Your task to perform on an android device: turn smart compose on in the gmail app Image 0: 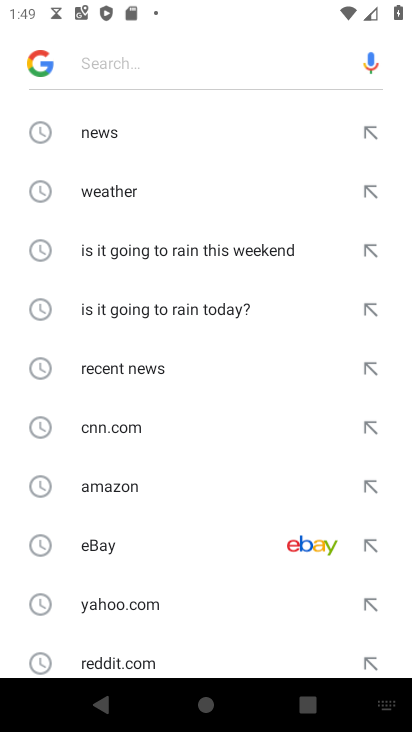
Step 0: press back button
Your task to perform on an android device: turn smart compose on in the gmail app Image 1: 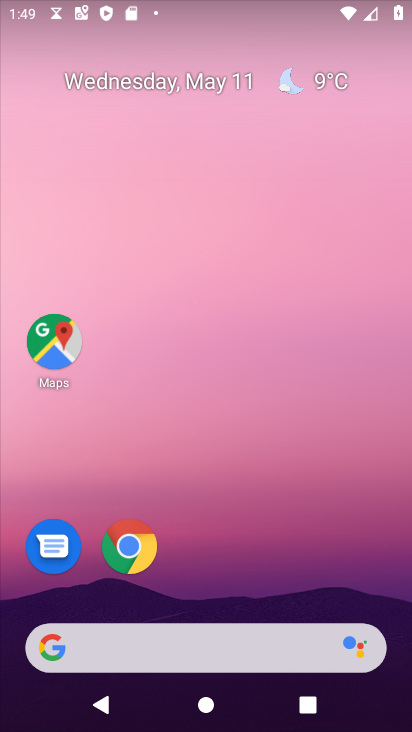
Step 1: drag from (280, 609) to (295, 109)
Your task to perform on an android device: turn smart compose on in the gmail app Image 2: 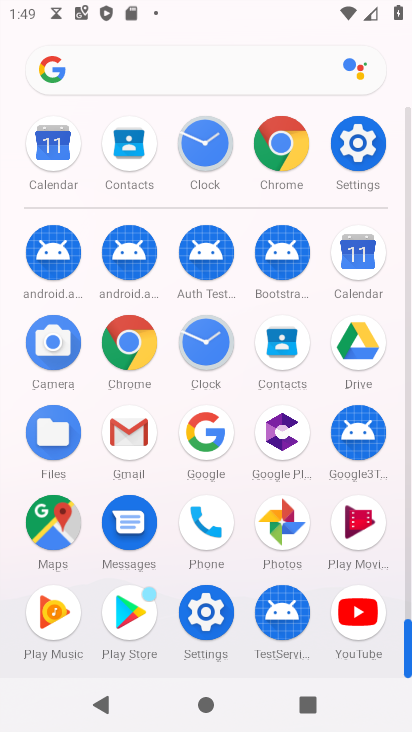
Step 2: click (124, 448)
Your task to perform on an android device: turn smart compose on in the gmail app Image 3: 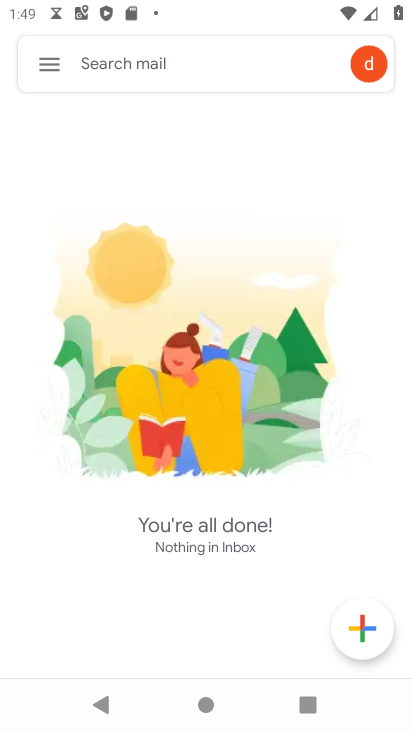
Step 3: click (369, 66)
Your task to perform on an android device: turn smart compose on in the gmail app Image 4: 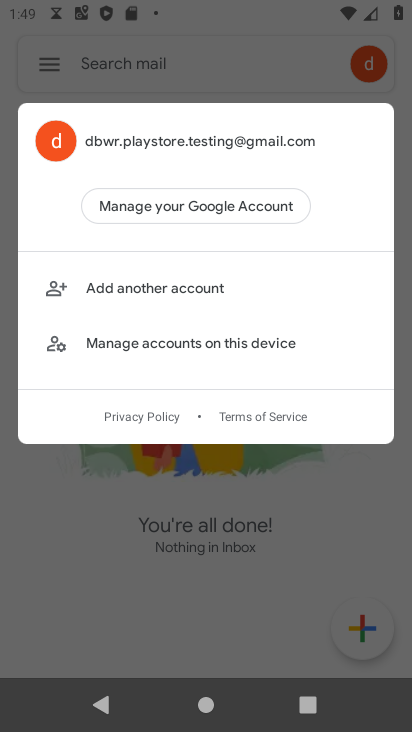
Step 4: click (327, 459)
Your task to perform on an android device: turn smart compose on in the gmail app Image 5: 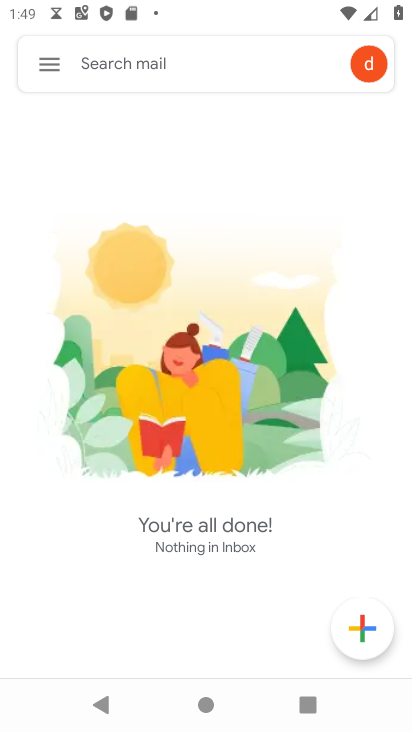
Step 5: click (48, 71)
Your task to perform on an android device: turn smart compose on in the gmail app Image 6: 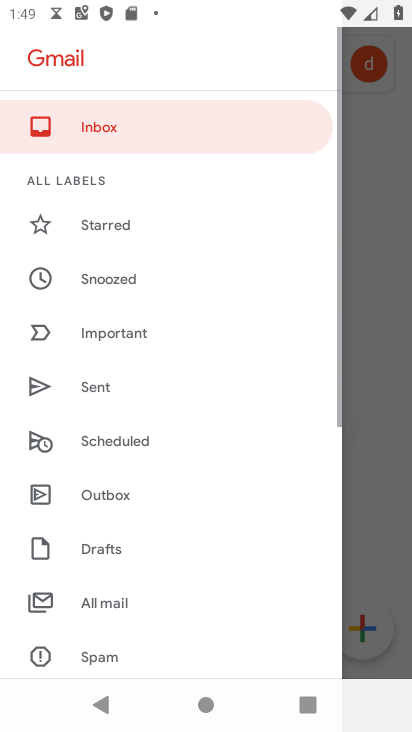
Step 6: drag from (234, 638) to (227, 165)
Your task to perform on an android device: turn smart compose on in the gmail app Image 7: 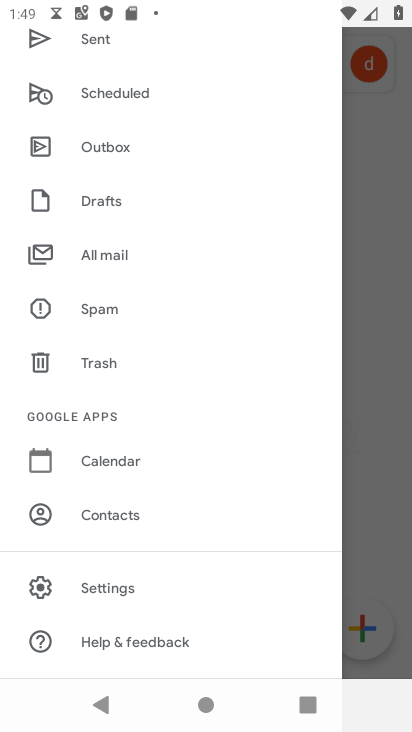
Step 7: click (155, 589)
Your task to perform on an android device: turn smart compose on in the gmail app Image 8: 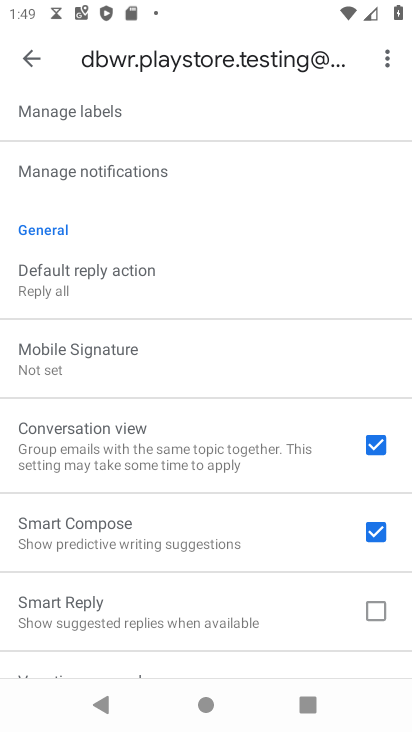
Step 8: task complete